Your task to perform on an android device: What's the weather going to be this weekend? Image 0: 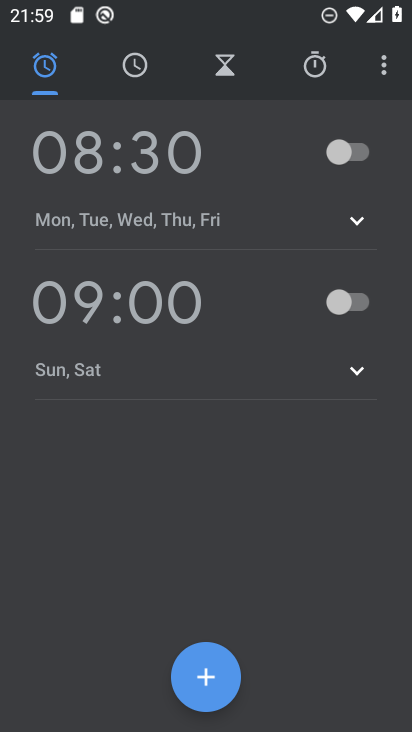
Step 0: press home button
Your task to perform on an android device: What's the weather going to be this weekend? Image 1: 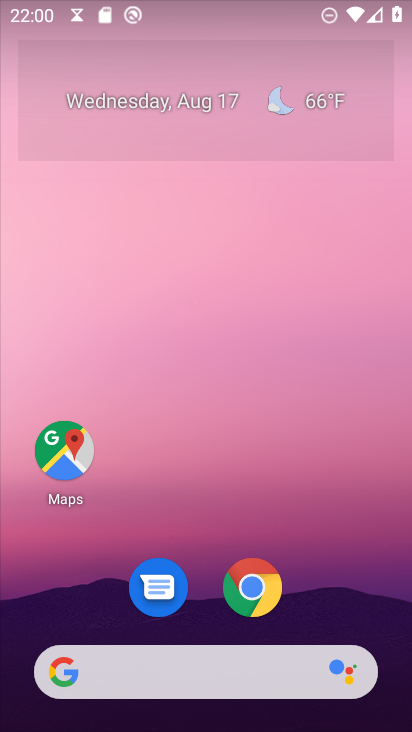
Step 1: click (129, 651)
Your task to perform on an android device: What's the weather going to be this weekend? Image 2: 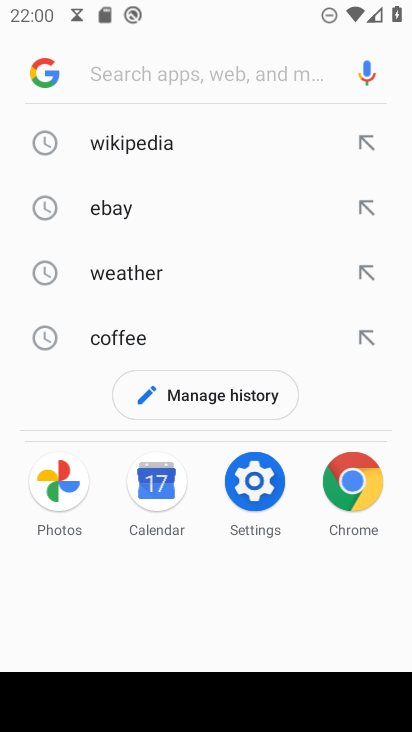
Step 2: type "What's the weather going to be this weekend?"
Your task to perform on an android device: What's the weather going to be this weekend? Image 3: 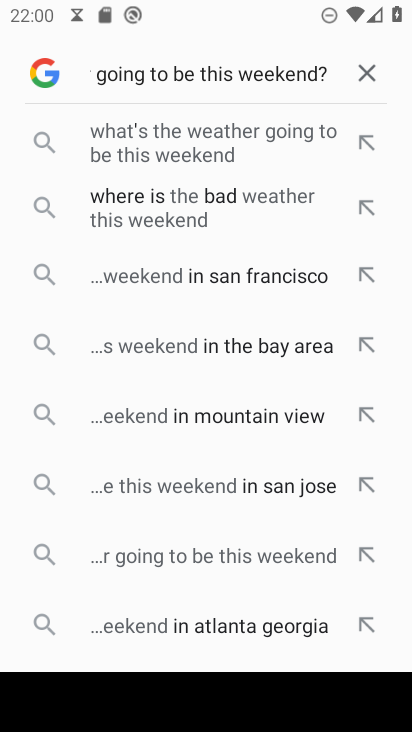
Step 3: type ""
Your task to perform on an android device: What's the weather going to be this weekend? Image 4: 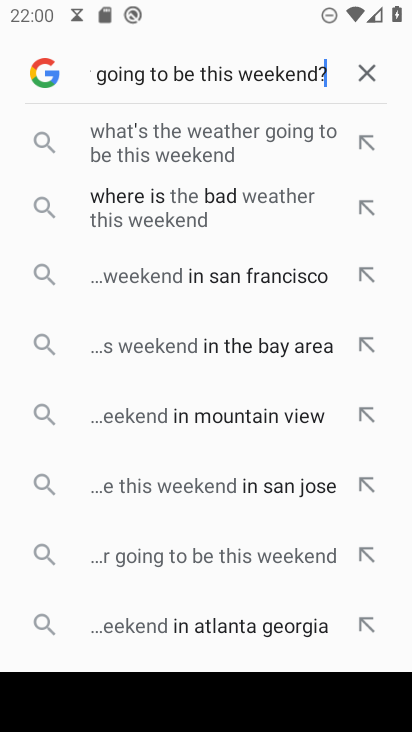
Step 4: type ""
Your task to perform on an android device: What's the weather going to be this weekend? Image 5: 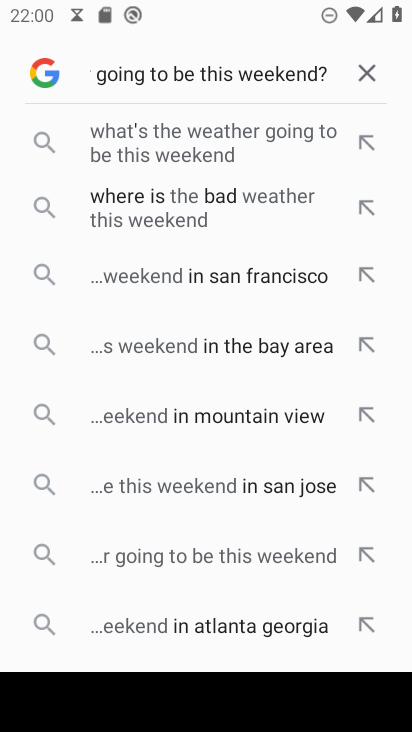
Step 5: task complete